Your task to perform on an android device: delete the emails in spam in the gmail app Image 0: 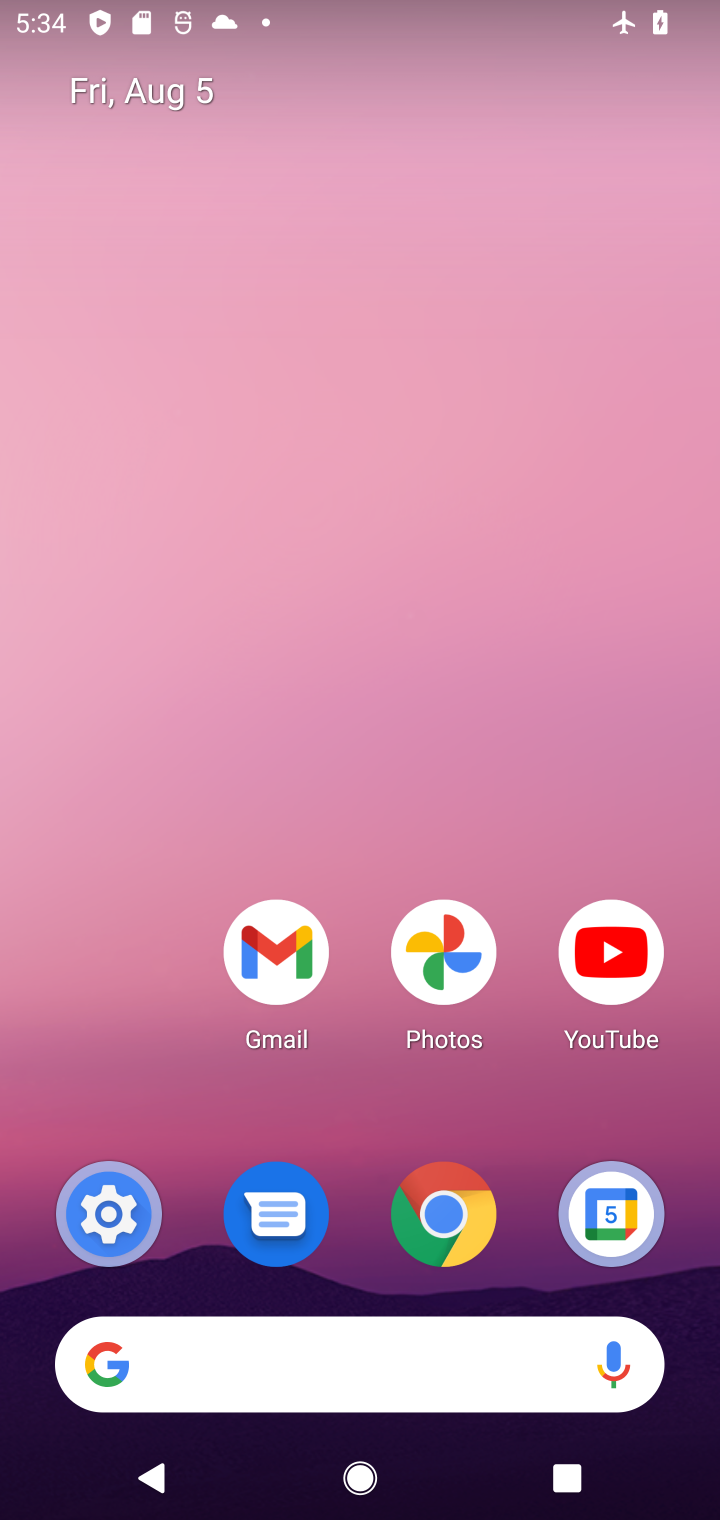
Step 0: drag from (144, 1012) to (240, 0)
Your task to perform on an android device: delete the emails in spam in the gmail app Image 1: 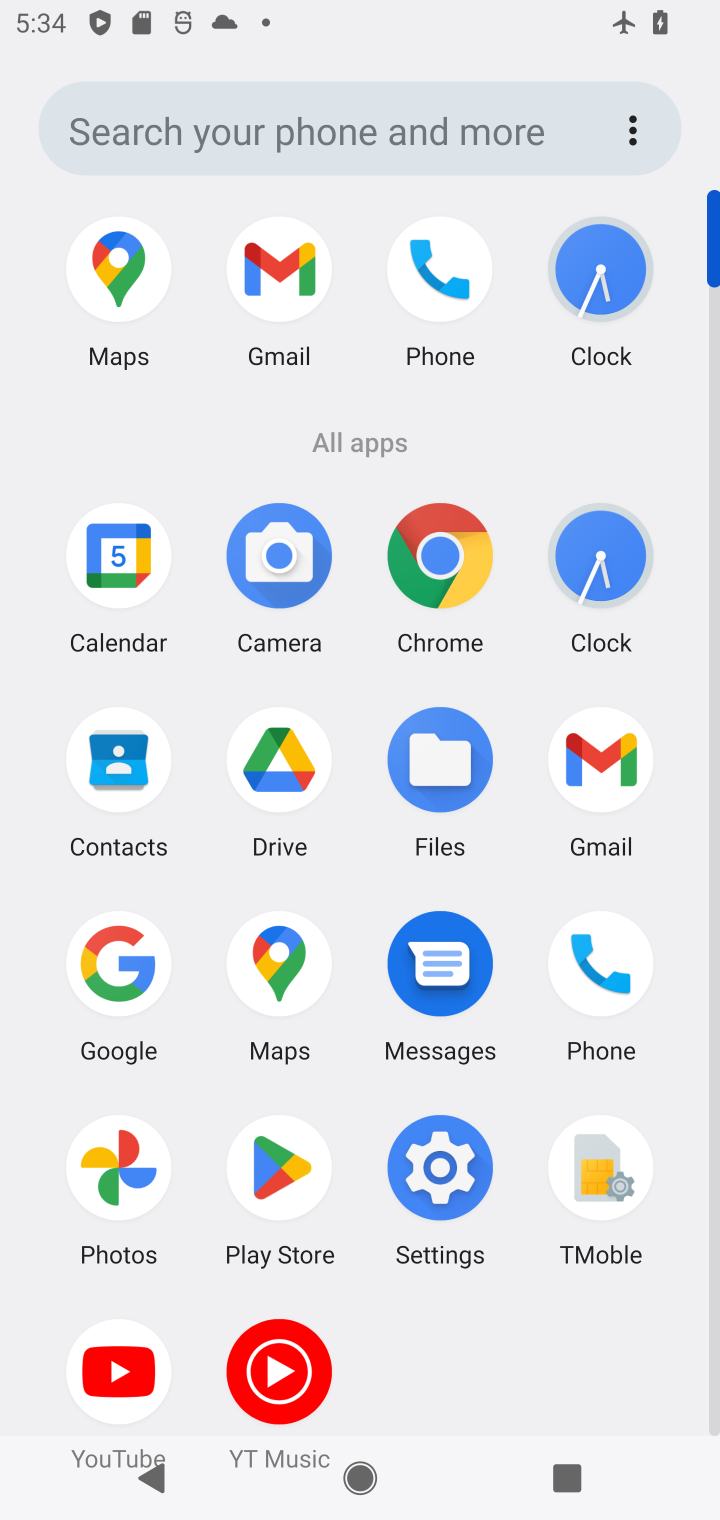
Step 1: click (272, 259)
Your task to perform on an android device: delete the emails in spam in the gmail app Image 2: 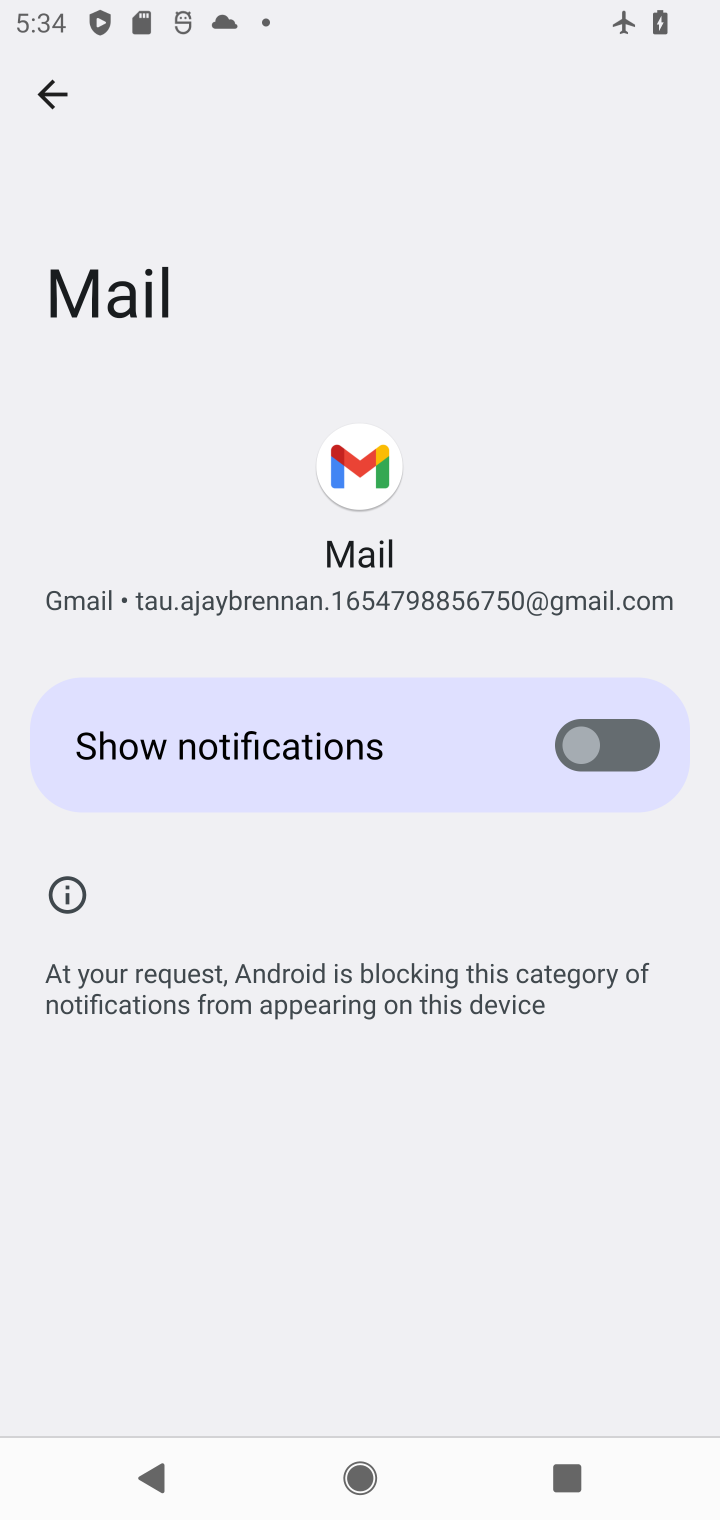
Step 2: click (63, 99)
Your task to perform on an android device: delete the emails in spam in the gmail app Image 3: 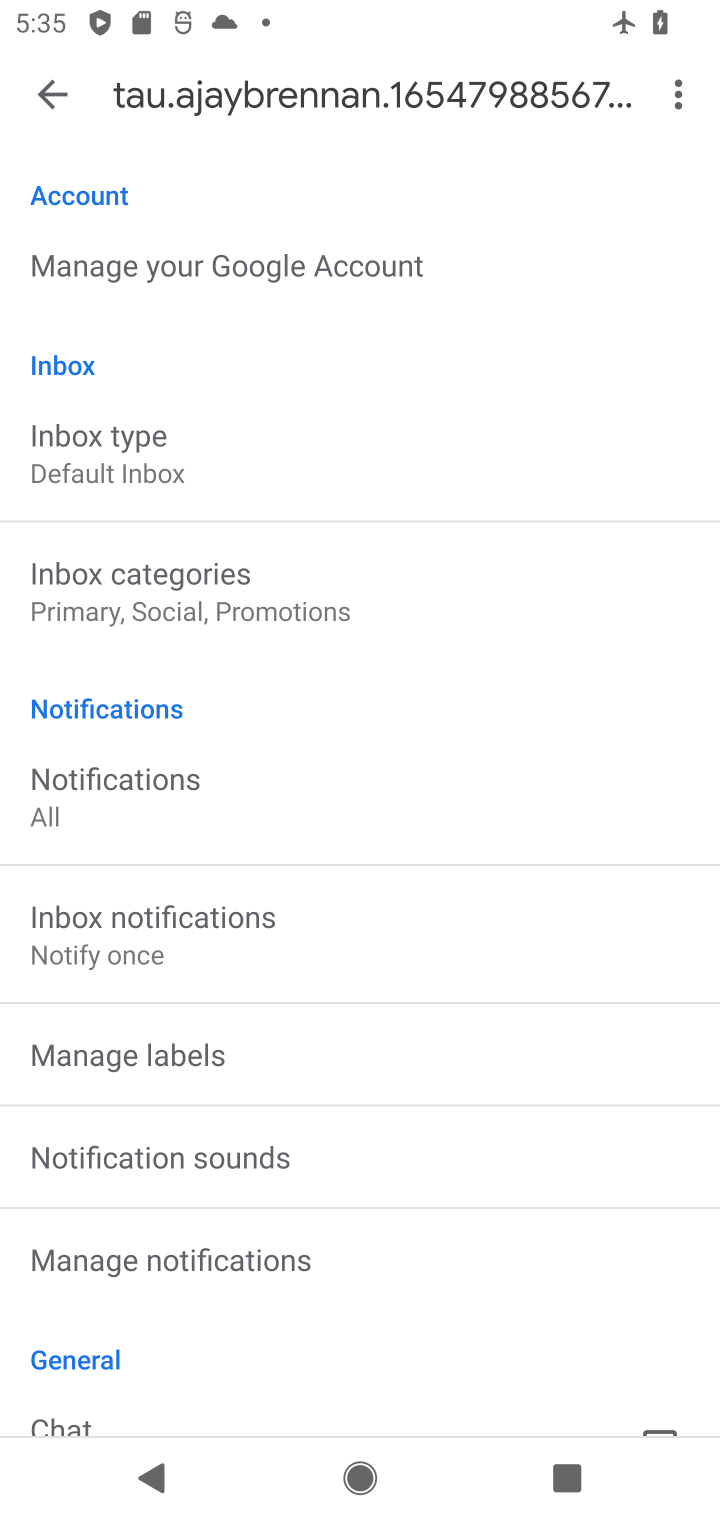
Step 3: click (50, 78)
Your task to perform on an android device: delete the emails in spam in the gmail app Image 4: 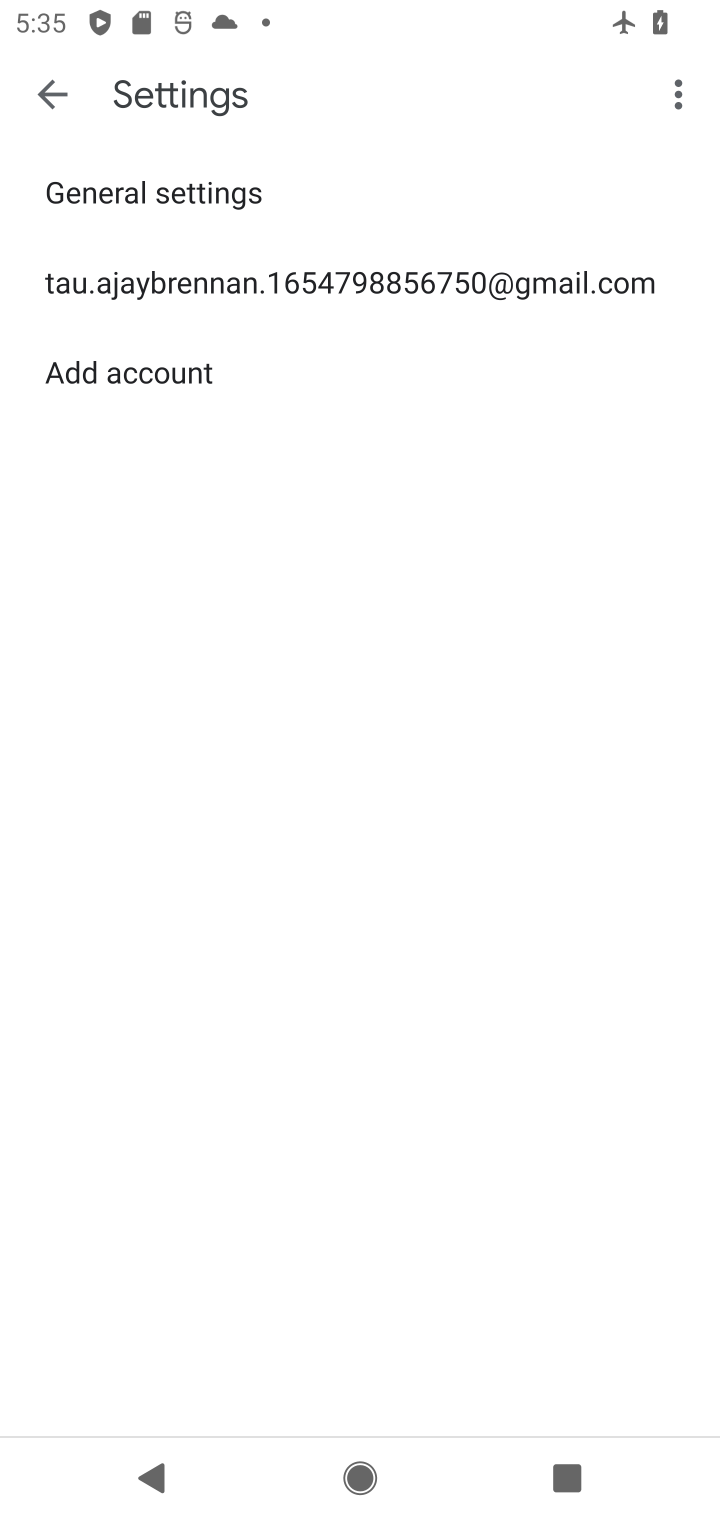
Step 4: click (50, 81)
Your task to perform on an android device: delete the emails in spam in the gmail app Image 5: 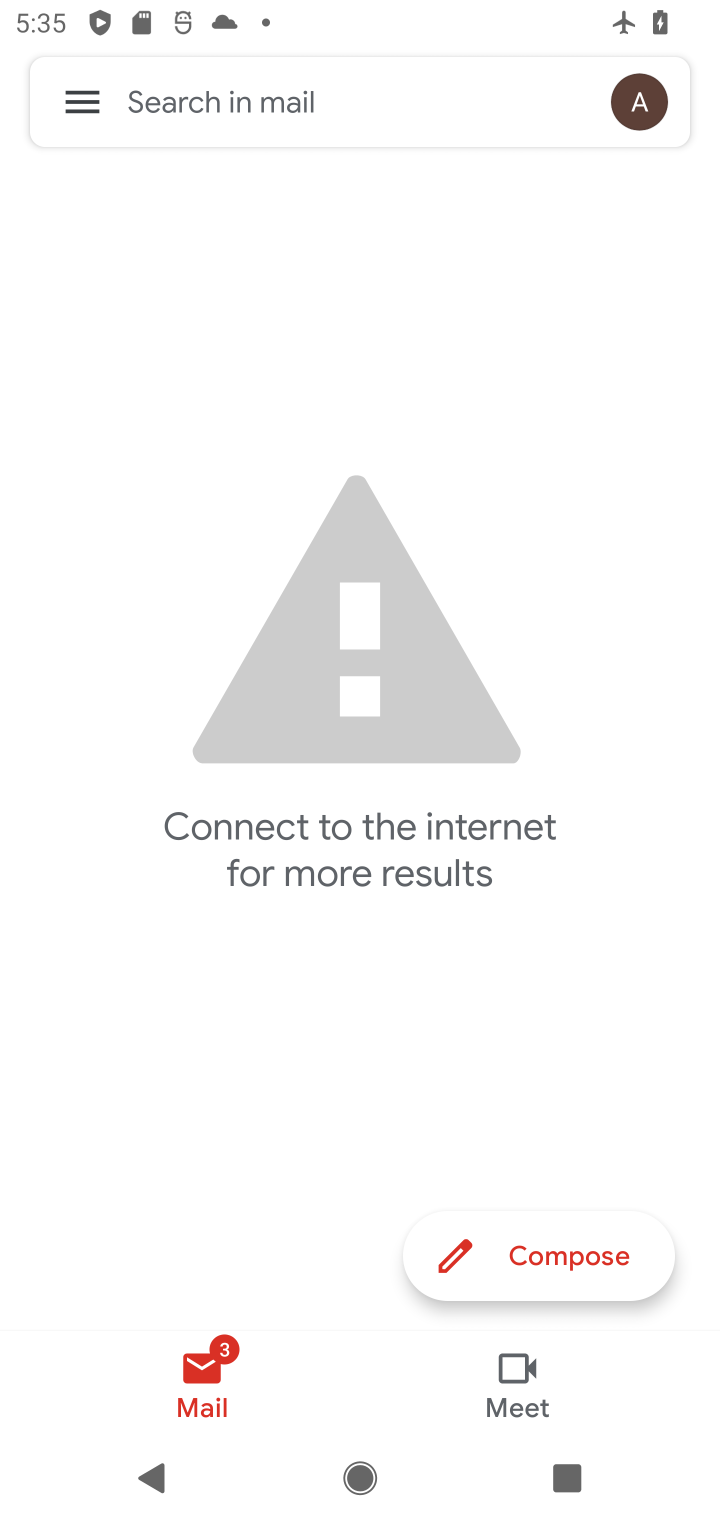
Step 5: click (88, 98)
Your task to perform on an android device: delete the emails in spam in the gmail app Image 6: 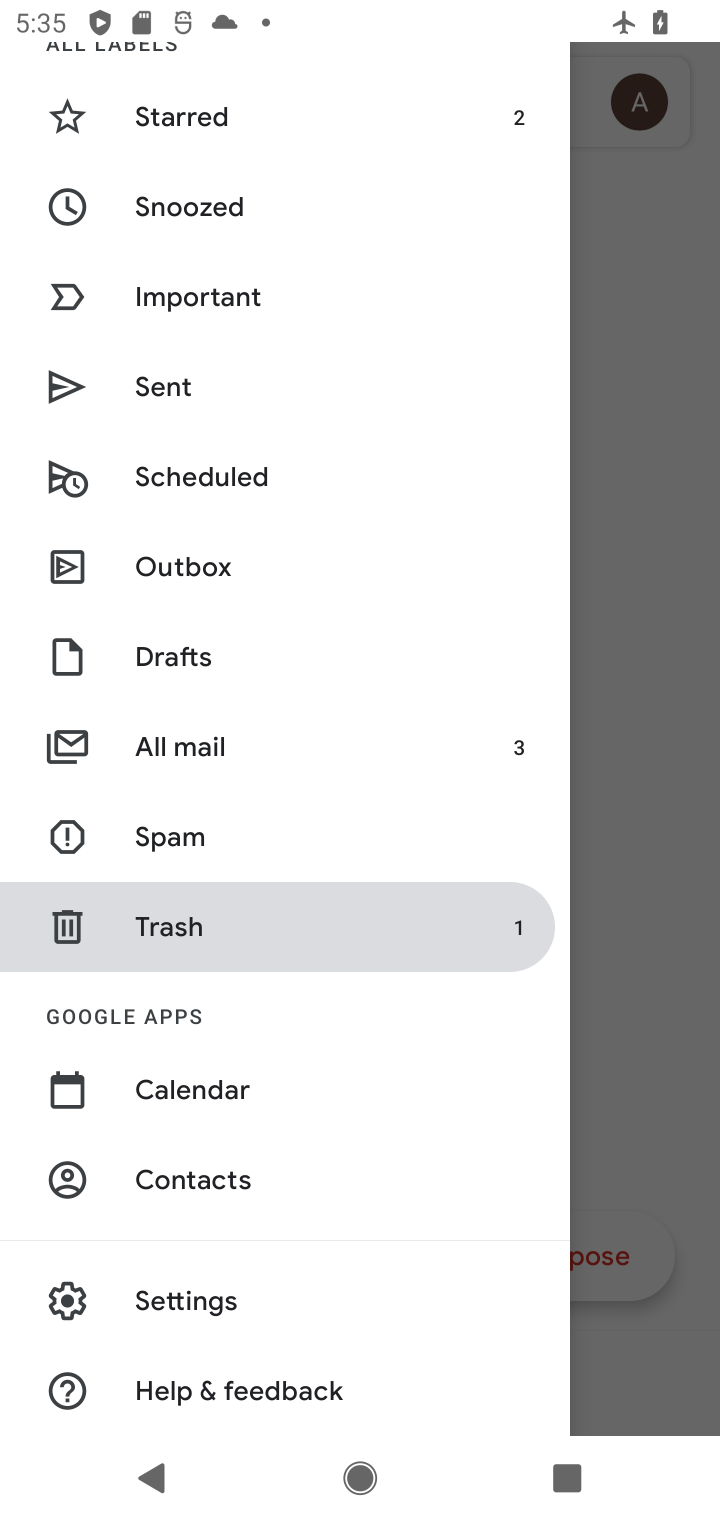
Step 6: click (188, 818)
Your task to perform on an android device: delete the emails in spam in the gmail app Image 7: 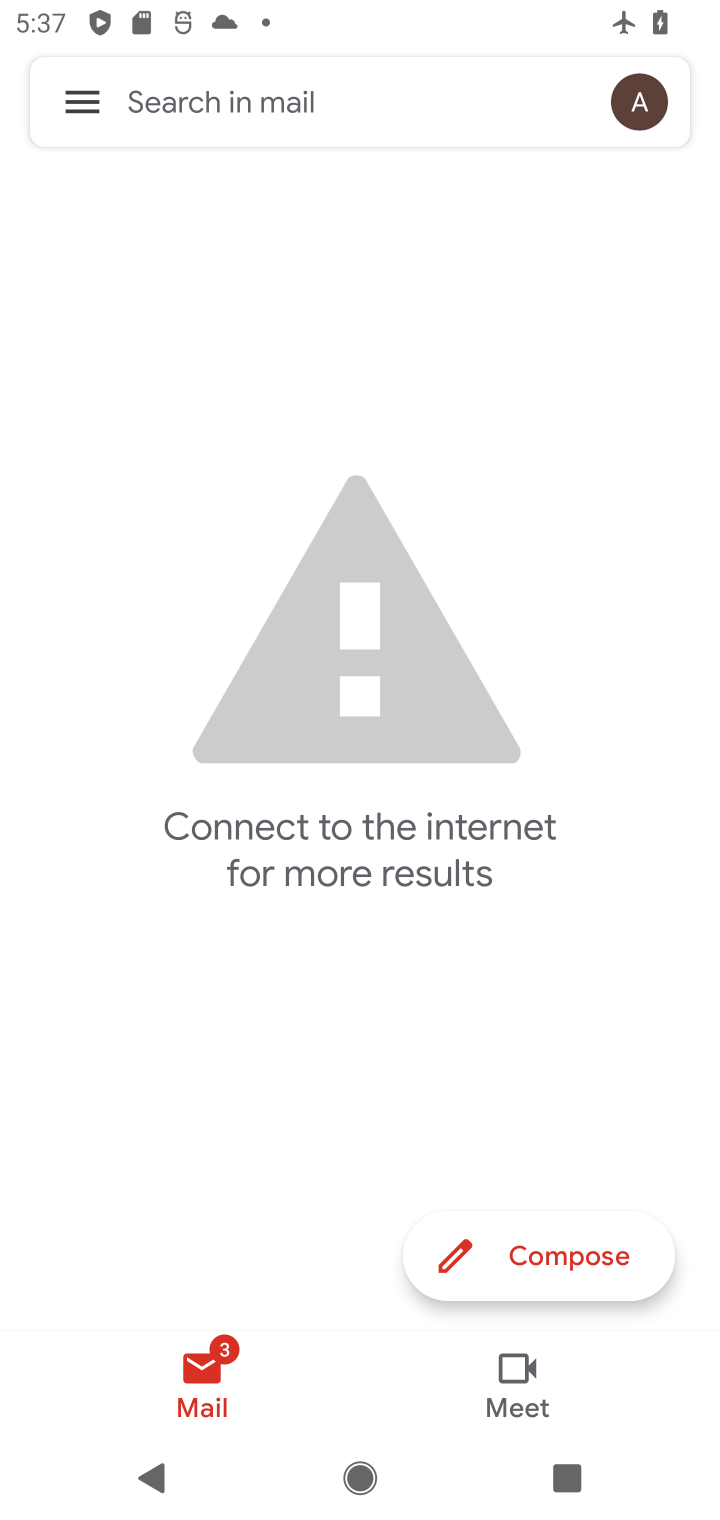
Step 7: task complete